Your task to perform on an android device: check storage Image 0: 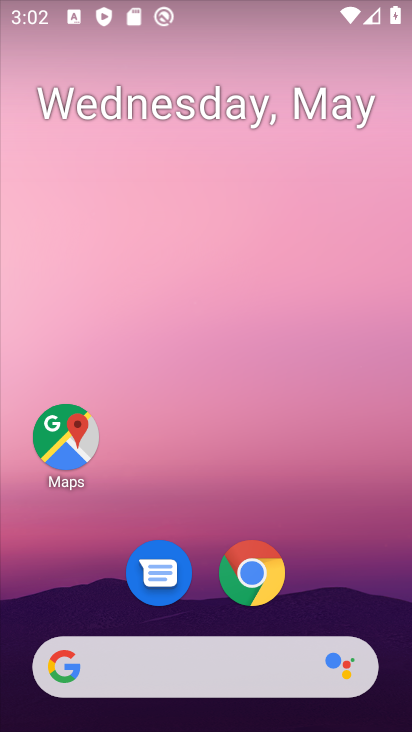
Step 0: drag from (198, 611) to (192, 288)
Your task to perform on an android device: check storage Image 1: 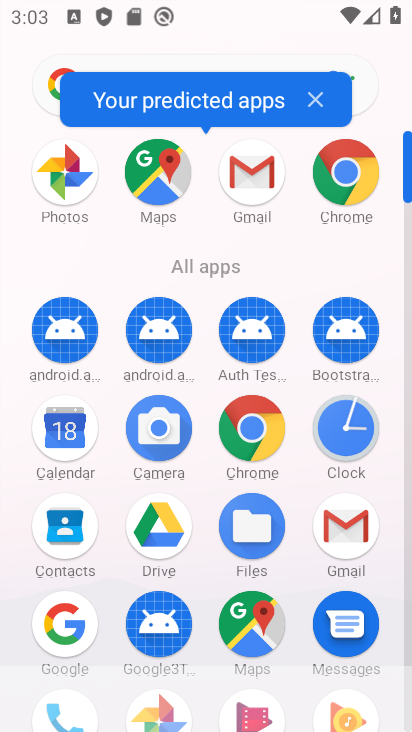
Step 1: drag from (209, 608) to (227, 251)
Your task to perform on an android device: check storage Image 2: 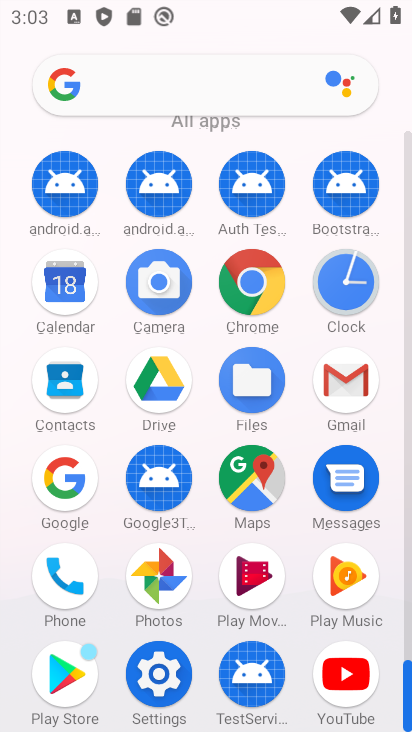
Step 2: click (167, 662)
Your task to perform on an android device: check storage Image 3: 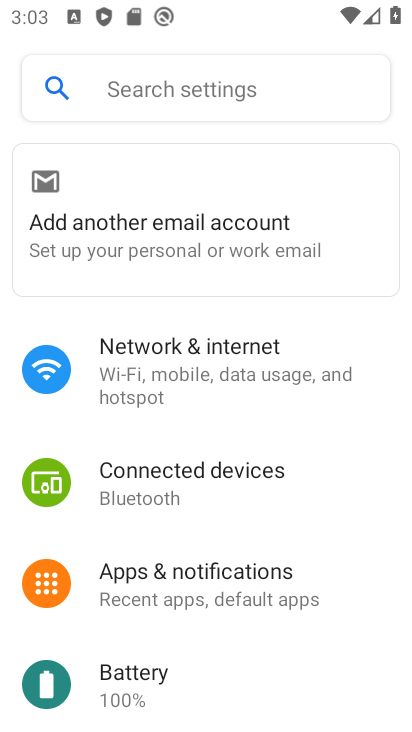
Step 3: drag from (203, 671) to (262, 306)
Your task to perform on an android device: check storage Image 4: 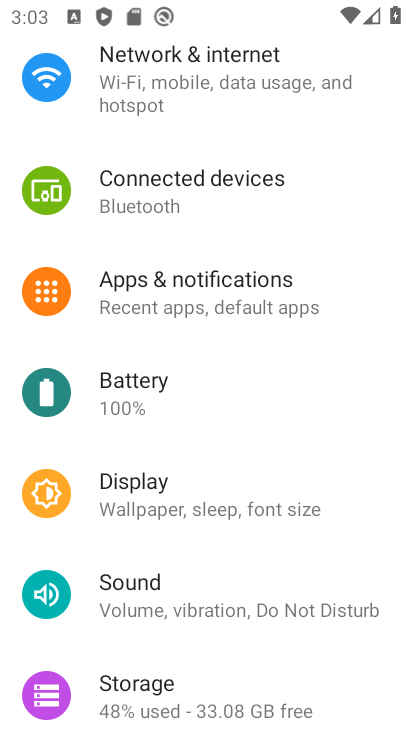
Step 4: click (141, 708)
Your task to perform on an android device: check storage Image 5: 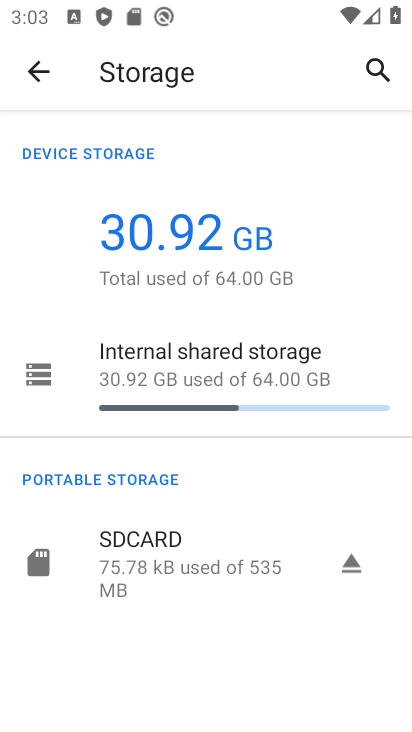
Step 5: task complete